Your task to perform on an android device: Open eBay Image 0: 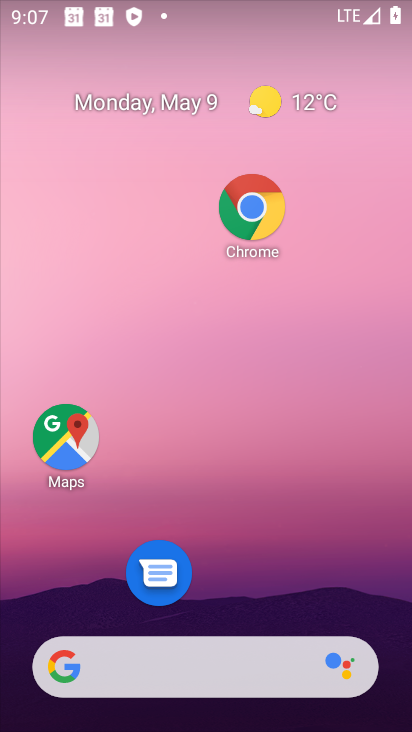
Step 0: drag from (307, 587) to (282, 247)
Your task to perform on an android device: Open eBay Image 1: 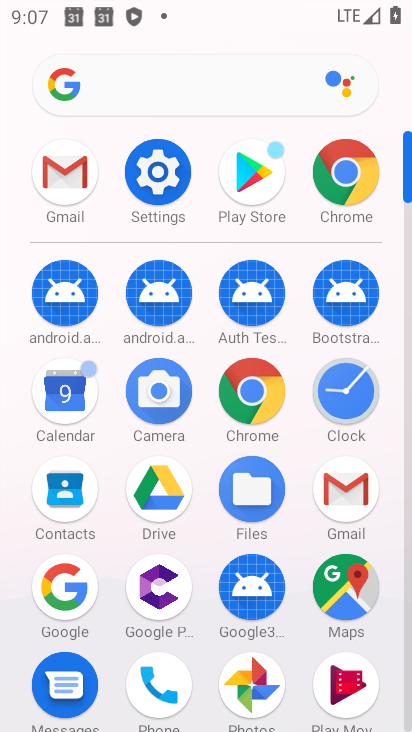
Step 1: click (359, 183)
Your task to perform on an android device: Open eBay Image 2: 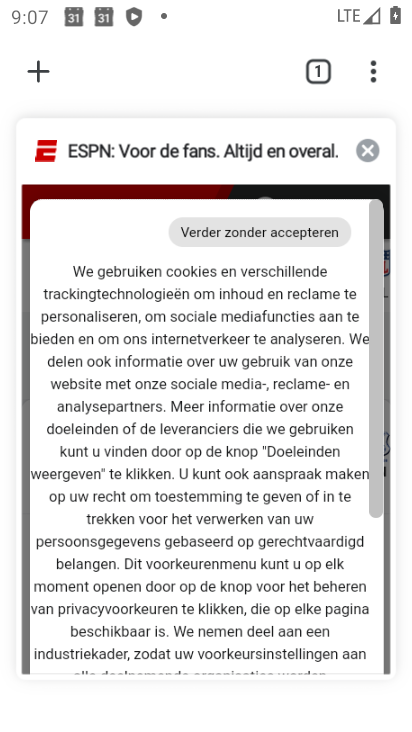
Step 2: click (34, 66)
Your task to perform on an android device: Open eBay Image 3: 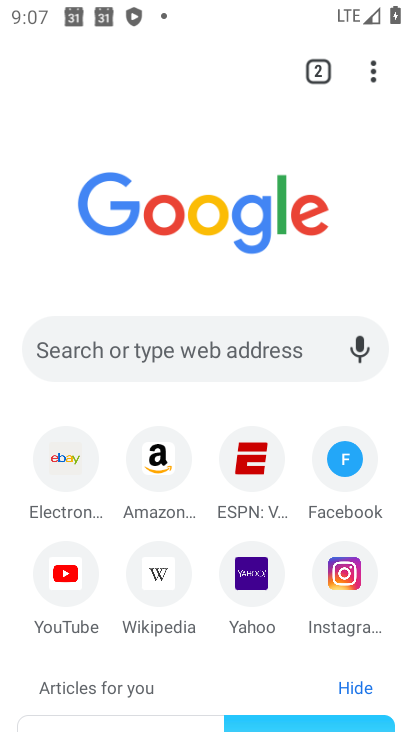
Step 3: click (77, 446)
Your task to perform on an android device: Open eBay Image 4: 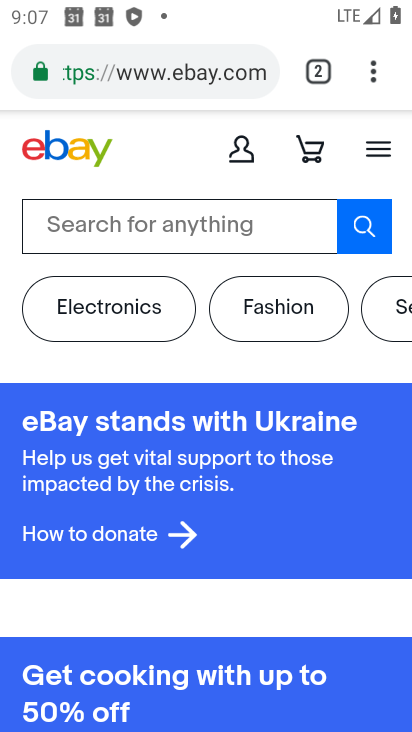
Step 4: task complete